Your task to perform on an android device: Open Chrome and go to settings Image 0: 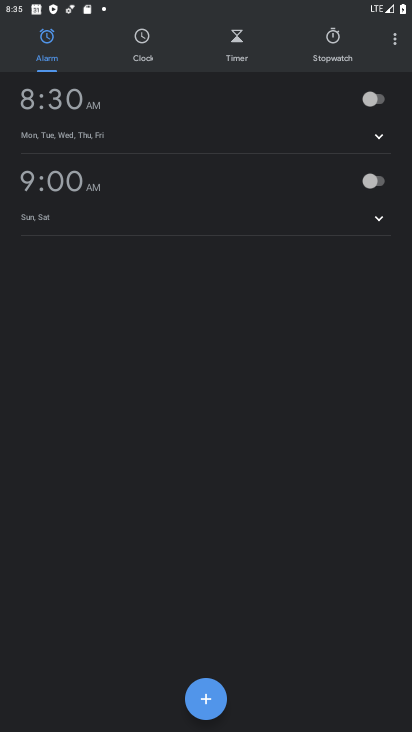
Step 0: press home button
Your task to perform on an android device: Open Chrome and go to settings Image 1: 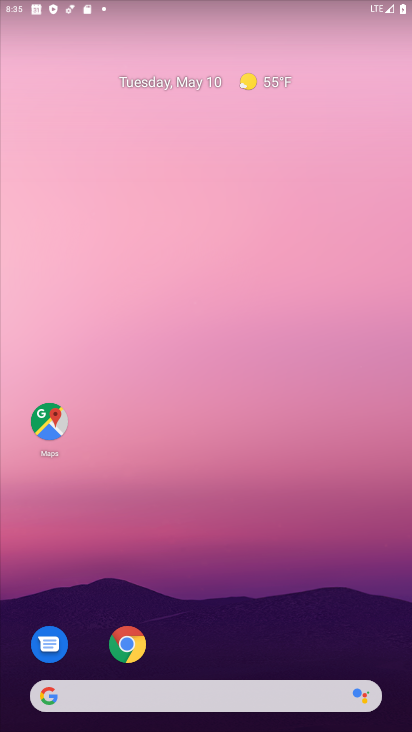
Step 1: drag from (279, 585) to (293, 16)
Your task to perform on an android device: Open Chrome and go to settings Image 2: 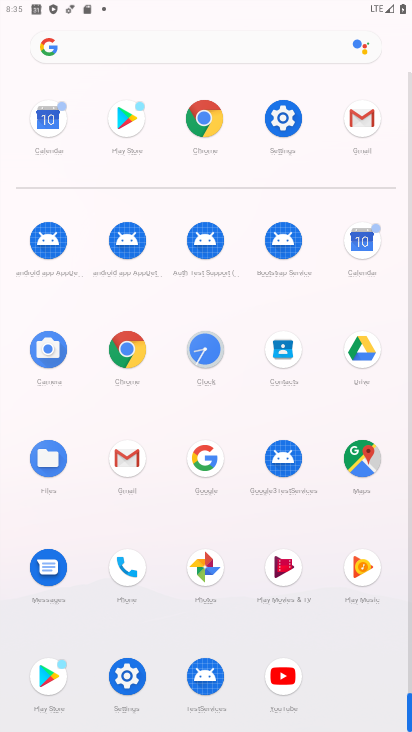
Step 2: click (204, 139)
Your task to perform on an android device: Open Chrome and go to settings Image 3: 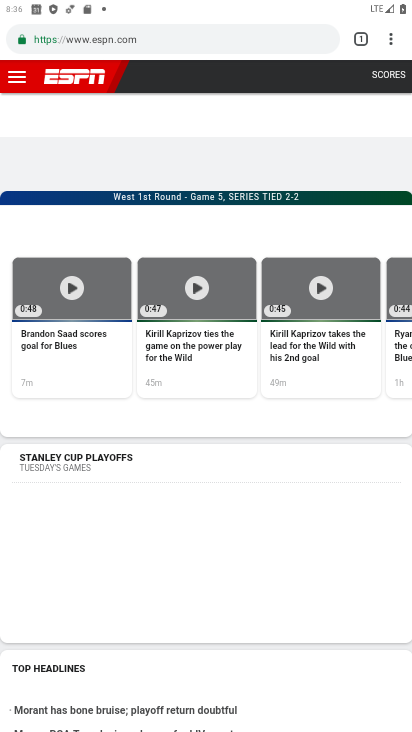
Step 3: click (392, 44)
Your task to perform on an android device: Open Chrome and go to settings Image 4: 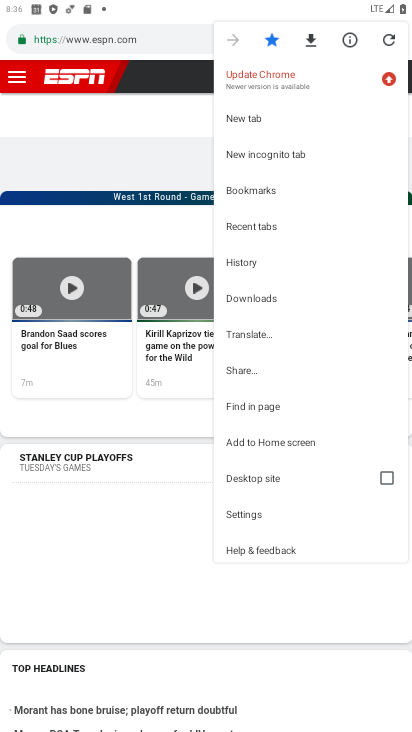
Step 4: click (260, 523)
Your task to perform on an android device: Open Chrome and go to settings Image 5: 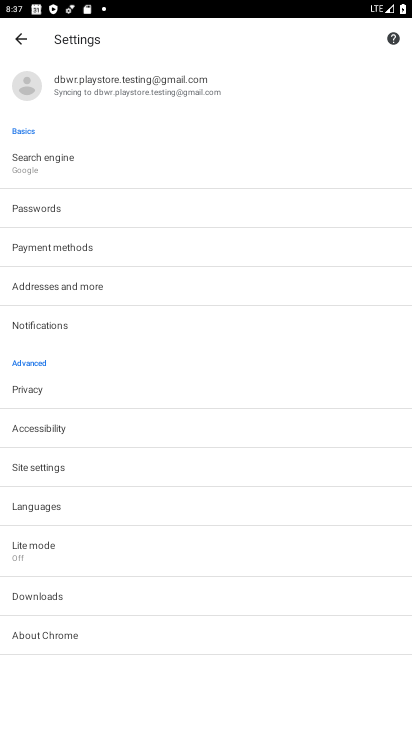
Step 5: task complete